Your task to perform on an android device: set the stopwatch Image 0: 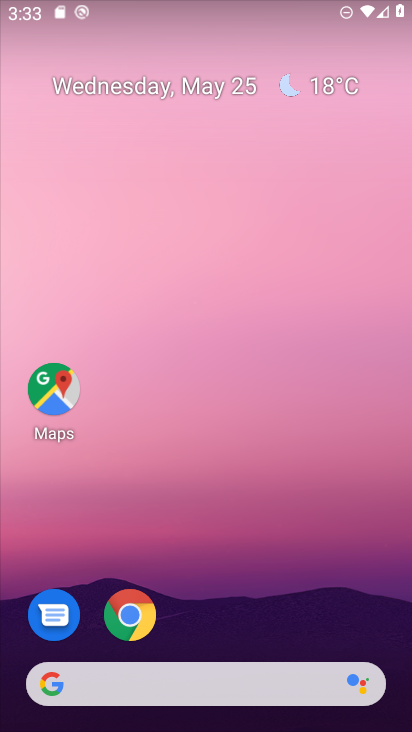
Step 0: drag from (270, 608) to (250, 34)
Your task to perform on an android device: set the stopwatch Image 1: 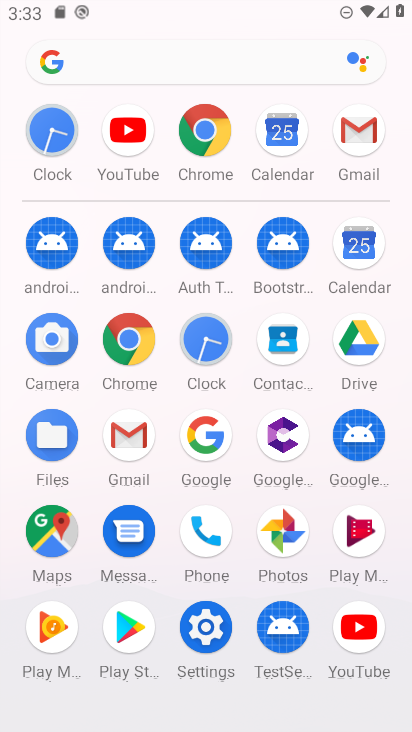
Step 1: click (50, 130)
Your task to perform on an android device: set the stopwatch Image 2: 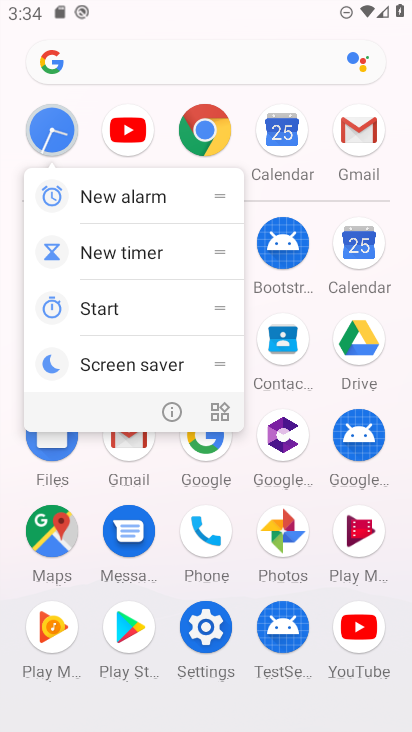
Step 2: click (50, 129)
Your task to perform on an android device: set the stopwatch Image 3: 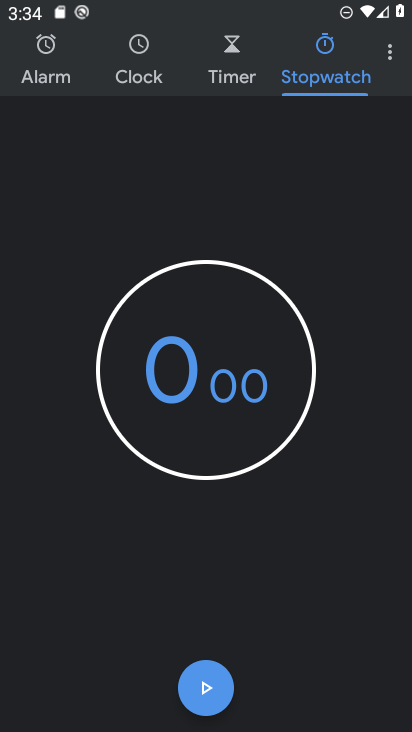
Step 3: click (325, 52)
Your task to perform on an android device: set the stopwatch Image 4: 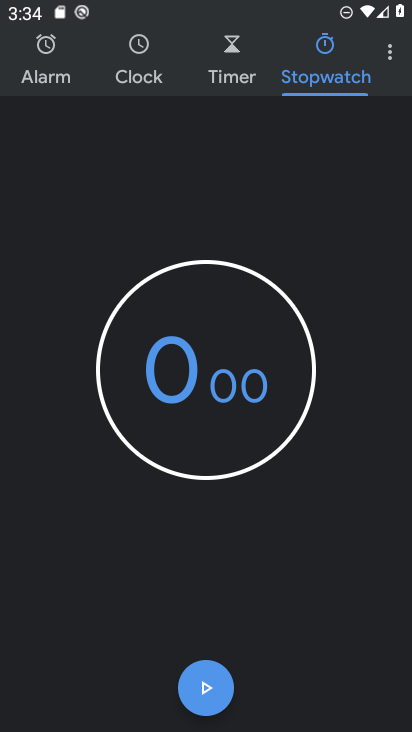
Step 4: task complete